Your task to perform on an android device: toggle sleep mode Image 0: 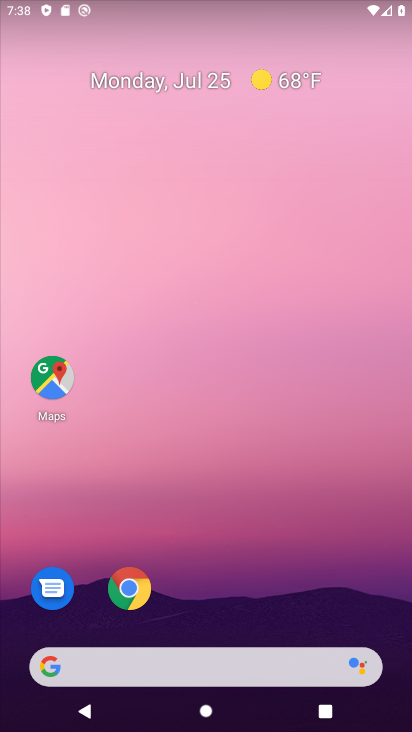
Step 0: press home button
Your task to perform on an android device: toggle sleep mode Image 1: 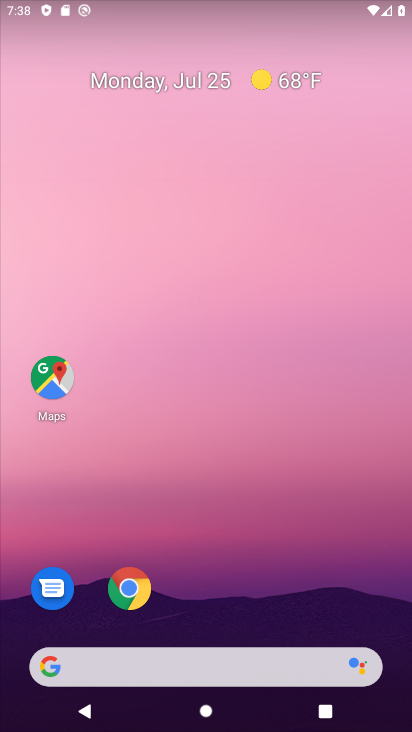
Step 1: drag from (368, 606) to (363, 130)
Your task to perform on an android device: toggle sleep mode Image 2: 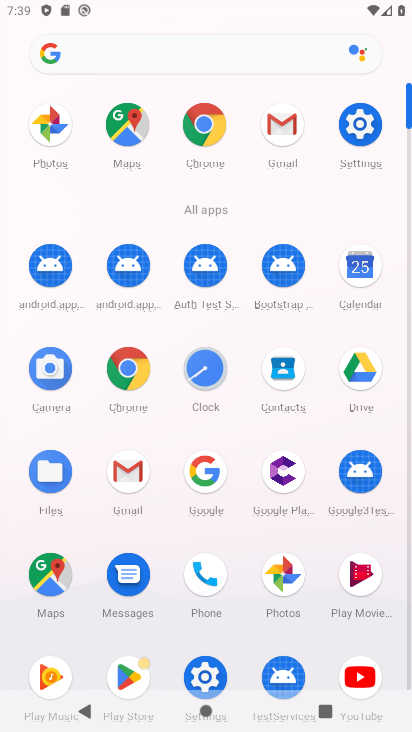
Step 2: click (358, 138)
Your task to perform on an android device: toggle sleep mode Image 3: 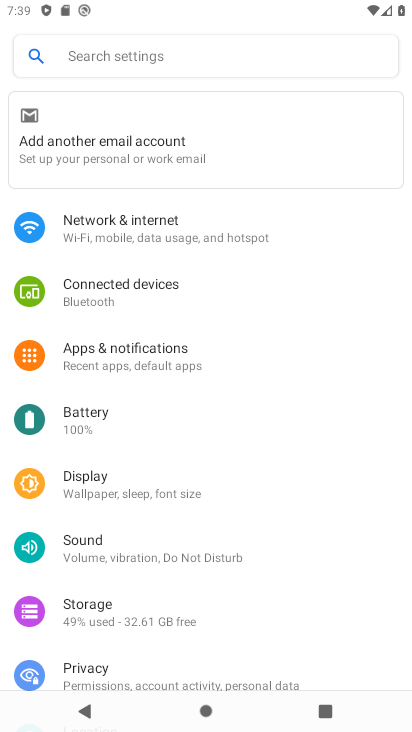
Step 3: drag from (296, 434) to (302, 355)
Your task to perform on an android device: toggle sleep mode Image 4: 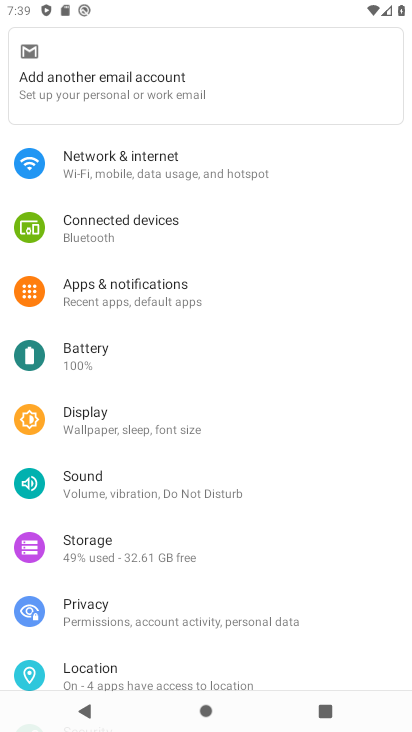
Step 4: drag from (302, 433) to (317, 348)
Your task to perform on an android device: toggle sleep mode Image 5: 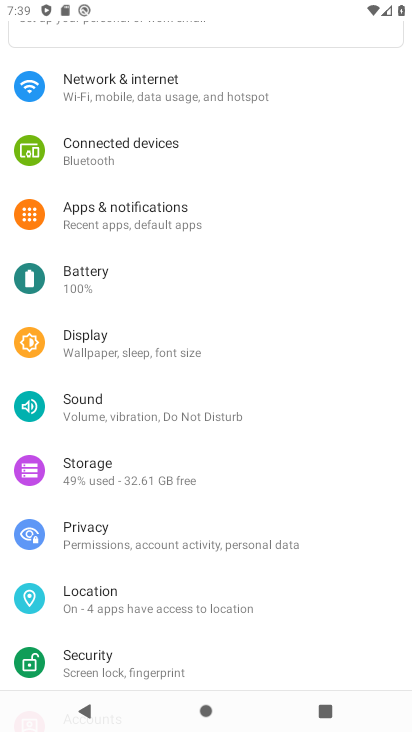
Step 5: drag from (311, 449) to (306, 346)
Your task to perform on an android device: toggle sleep mode Image 6: 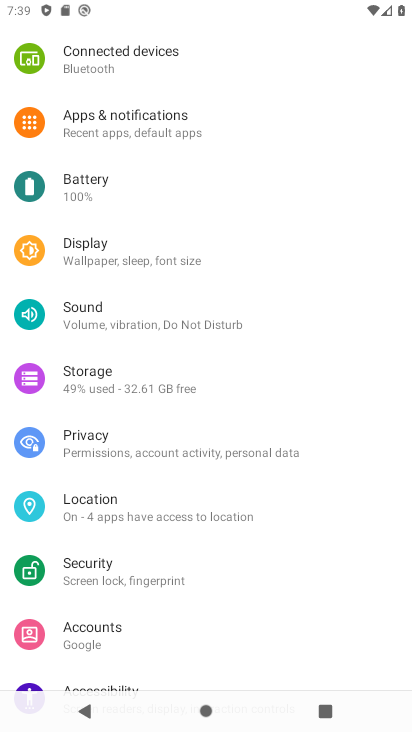
Step 6: drag from (301, 438) to (310, 324)
Your task to perform on an android device: toggle sleep mode Image 7: 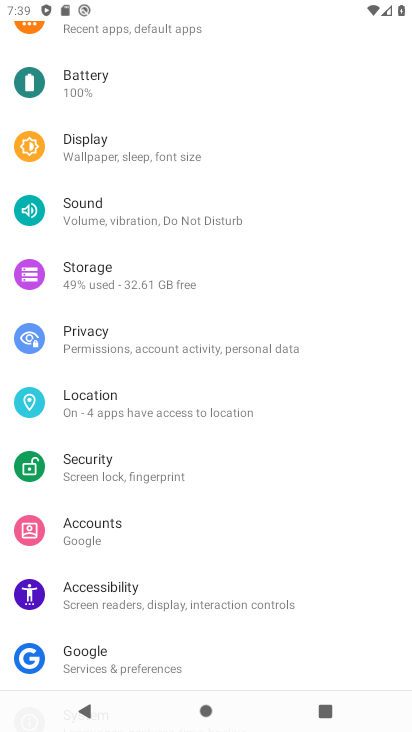
Step 7: drag from (315, 457) to (320, 342)
Your task to perform on an android device: toggle sleep mode Image 8: 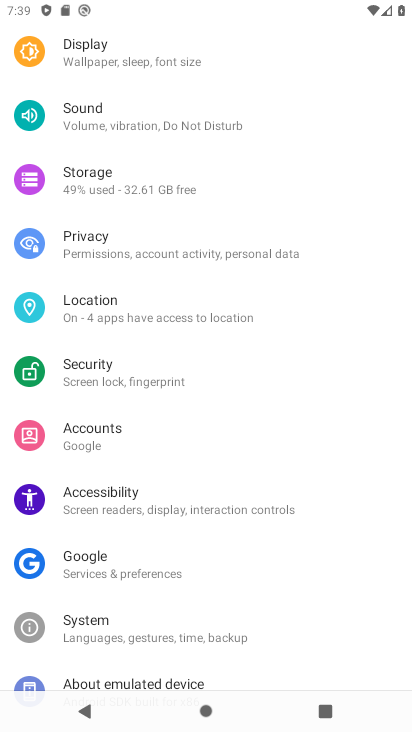
Step 8: drag from (338, 504) to (340, 361)
Your task to perform on an android device: toggle sleep mode Image 9: 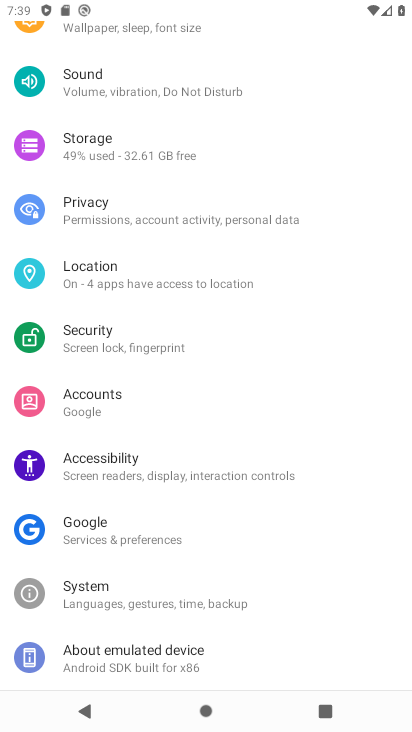
Step 9: drag from (324, 330) to (324, 415)
Your task to perform on an android device: toggle sleep mode Image 10: 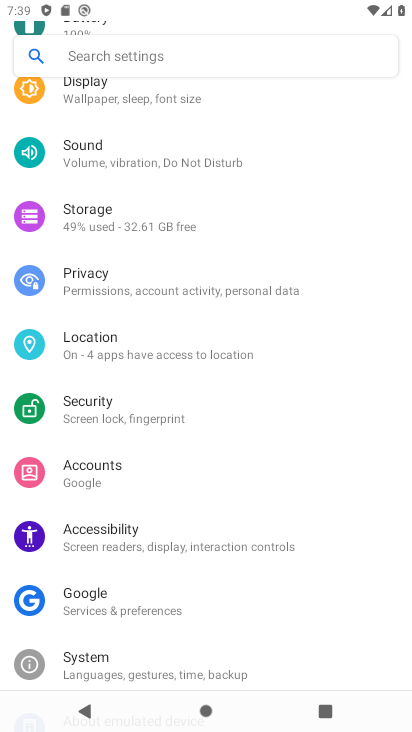
Step 10: drag from (329, 246) to (337, 373)
Your task to perform on an android device: toggle sleep mode Image 11: 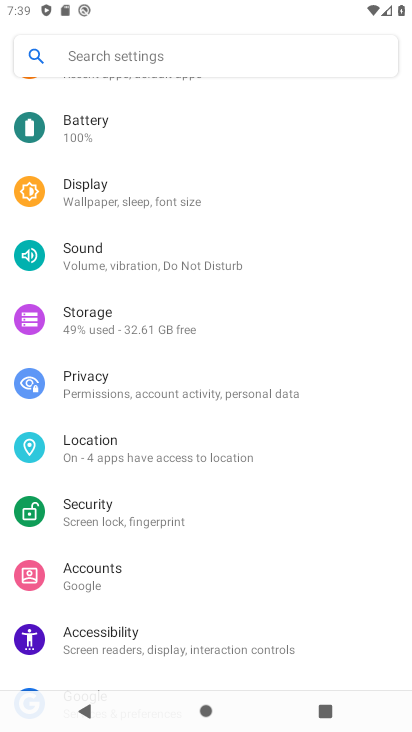
Step 11: drag from (333, 194) to (340, 401)
Your task to perform on an android device: toggle sleep mode Image 12: 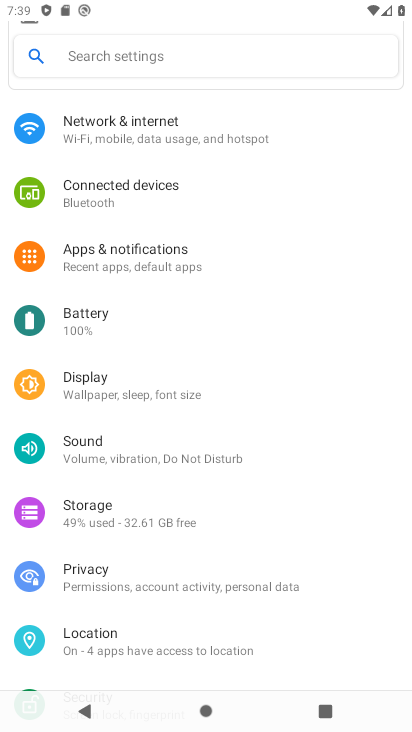
Step 12: drag from (327, 241) to (327, 399)
Your task to perform on an android device: toggle sleep mode Image 13: 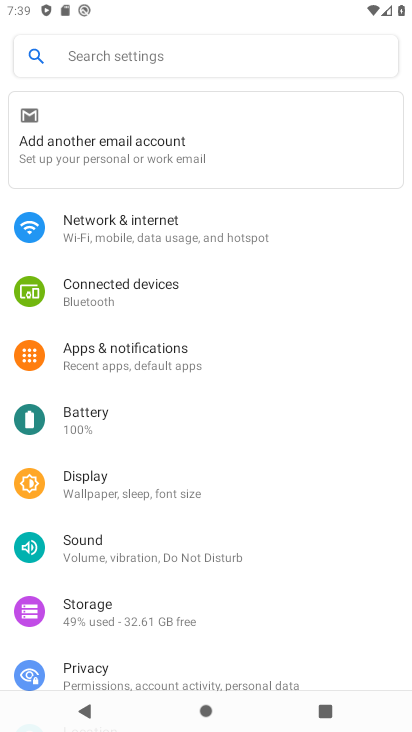
Step 13: click (216, 496)
Your task to perform on an android device: toggle sleep mode Image 14: 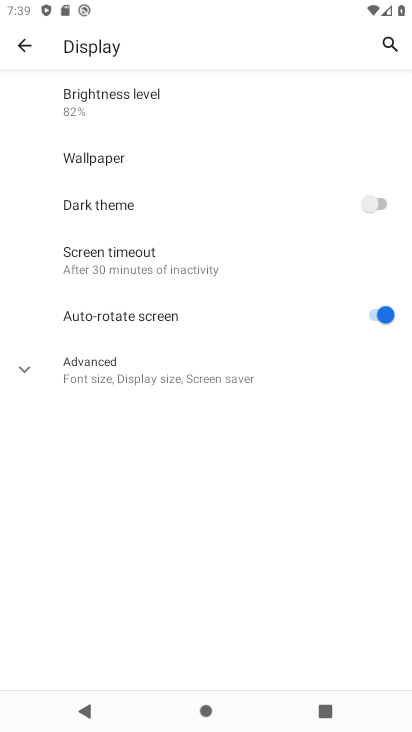
Step 14: click (185, 367)
Your task to perform on an android device: toggle sleep mode Image 15: 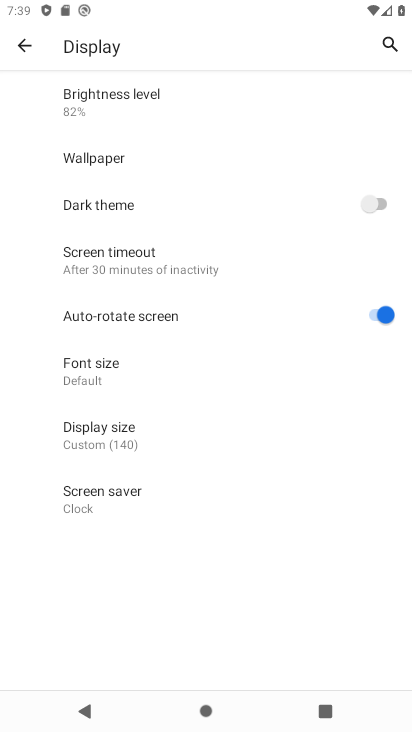
Step 15: task complete